Your task to perform on an android device: Open Google Maps Image 0: 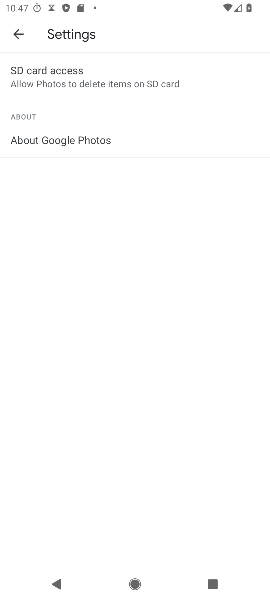
Step 0: press home button
Your task to perform on an android device: Open Google Maps Image 1: 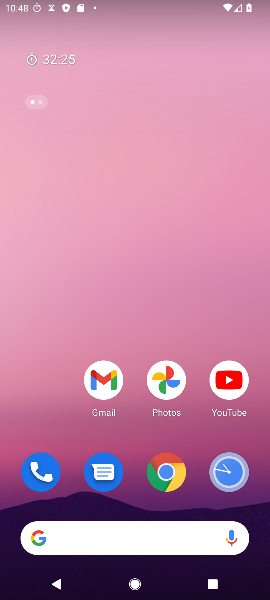
Step 1: drag from (199, 334) to (119, 61)
Your task to perform on an android device: Open Google Maps Image 2: 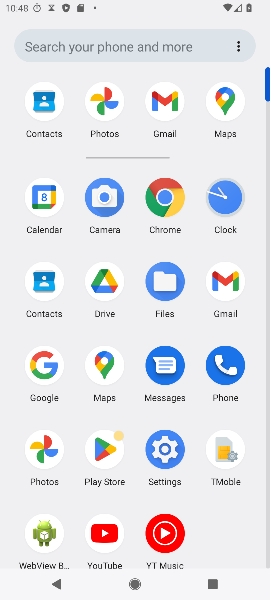
Step 2: click (213, 115)
Your task to perform on an android device: Open Google Maps Image 3: 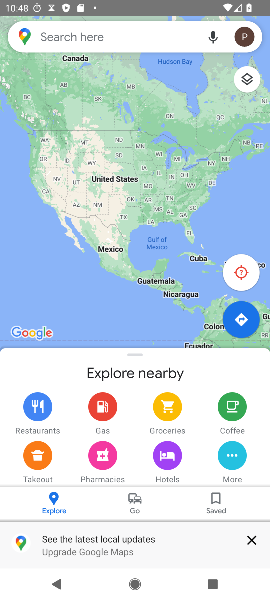
Step 3: task complete